Your task to perform on an android device: Open network settings Image 0: 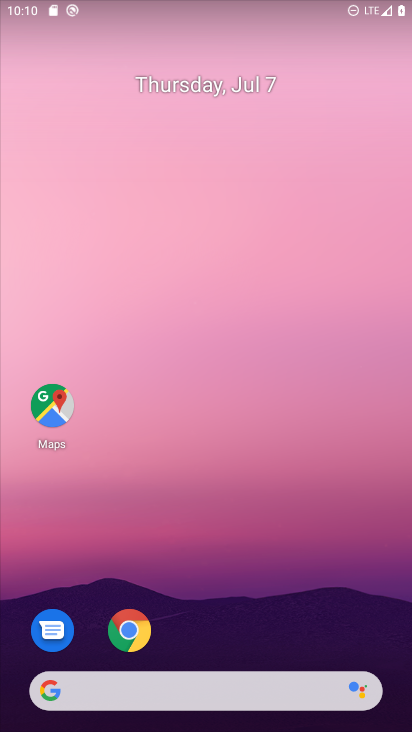
Step 0: drag from (209, 626) to (219, 130)
Your task to perform on an android device: Open network settings Image 1: 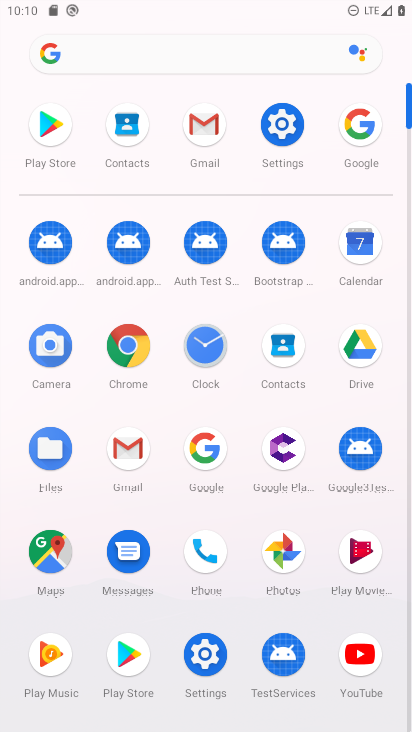
Step 1: click (271, 126)
Your task to perform on an android device: Open network settings Image 2: 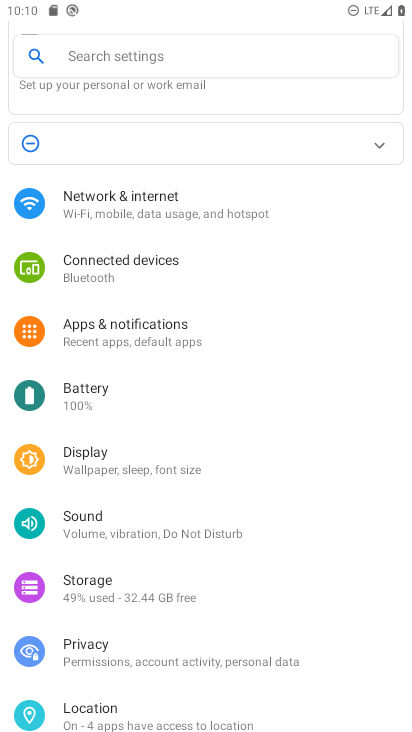
Step 2: click (165, 198)
Your task to perform on an android device: Open network settings Image 3: 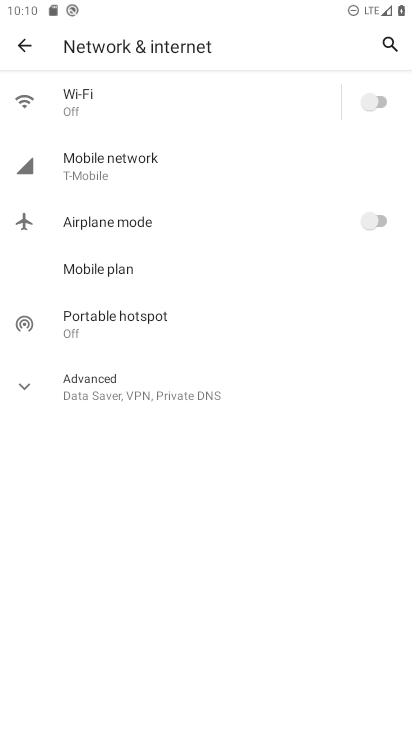
Step 3: task complete